Your task to perform on an android device: add a contact Image 0: 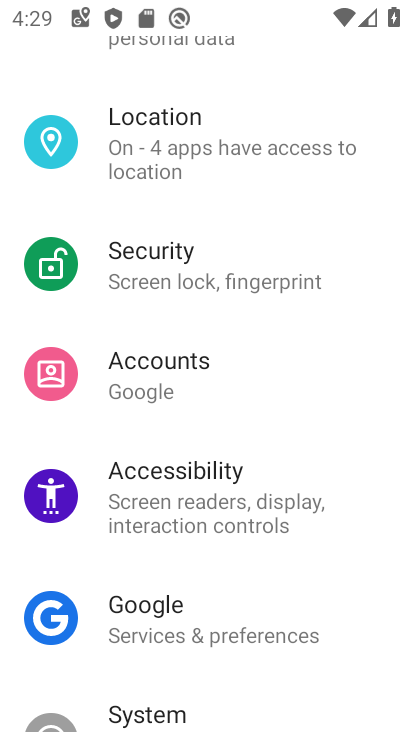
Step 0: press back button
Your task to perform on an android device: add a contact Image 1: 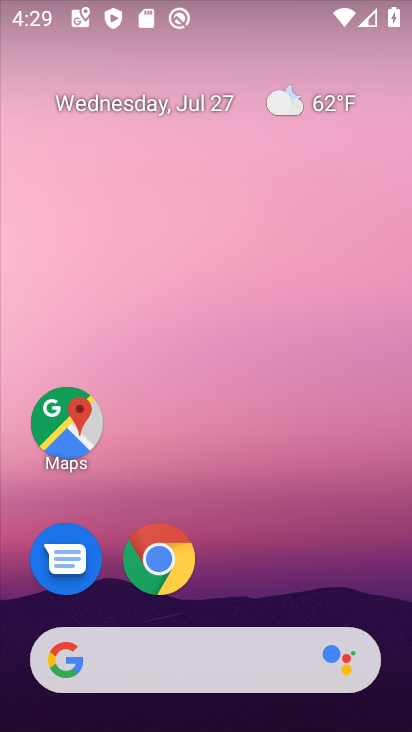
Step 1: drag from (313, 576) to (328, 20)
Your task to perform on an android device: add a contact Image 2: 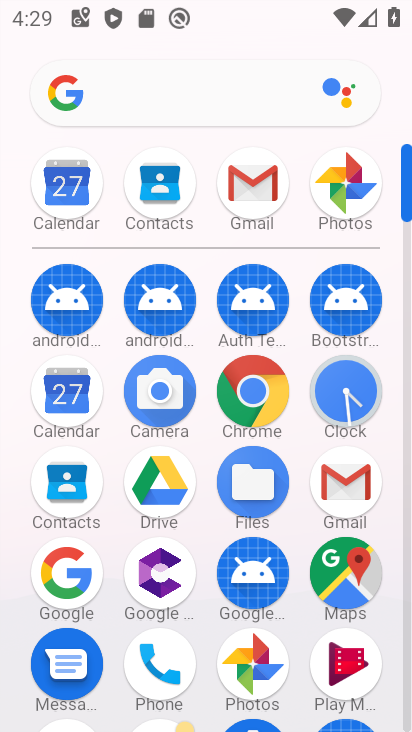
Step 2: click (65, 499)
Your task to perform on an android device: add a contact Image 3: 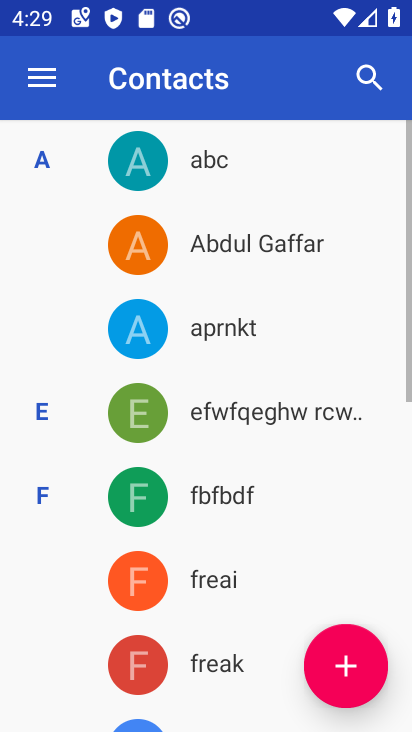
Step 3: click (356, 652)
Your task to perform on an android device: add a contact Image 4: 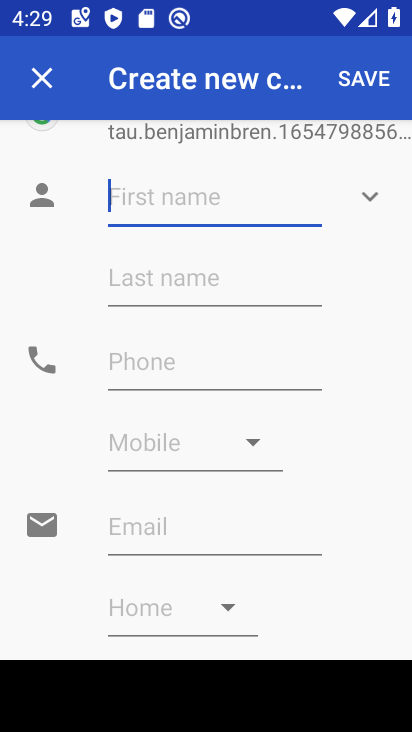
Step 4: click (159, 202)
Your task to perform on an android device: add a contact Image 5: 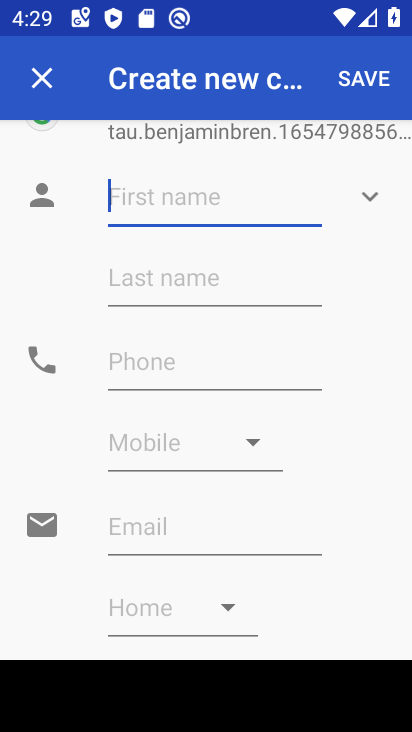
Step 5: type "bfgb"
Your task to perform on an android device: add a contact Image 6: 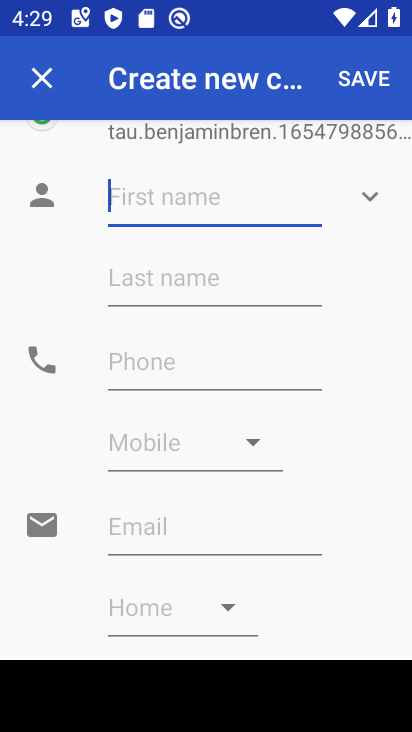
Step 6: click (172, 377)
Your task to perform on an android device: add a contact Image 7: 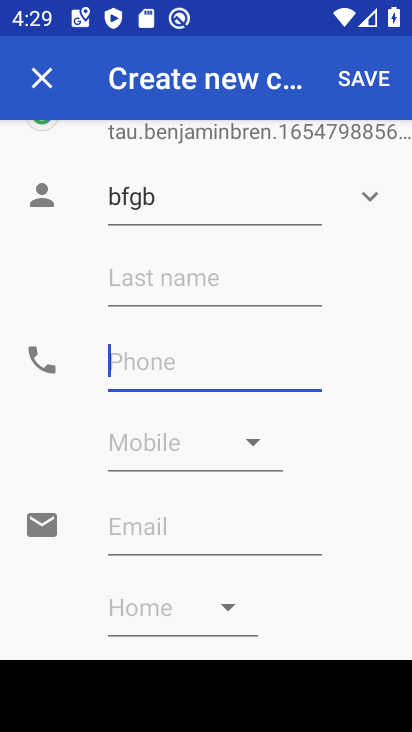
Step 7: type "67756"
Your task to perform on an android device: add a contact Image 8: 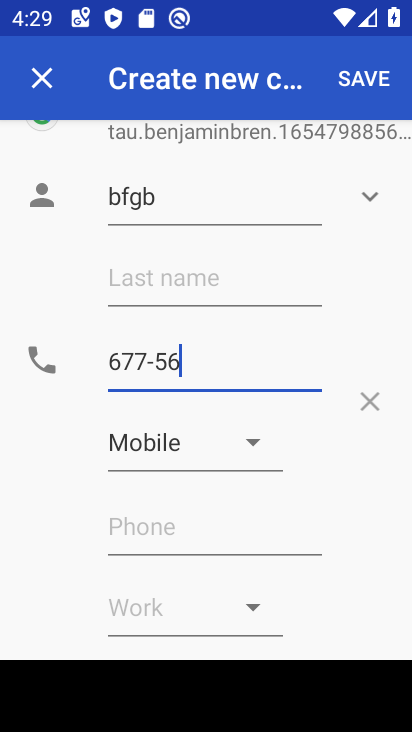
Step 8: click (371, 81)
Your task to perform on an android device: add a contact Image 9: 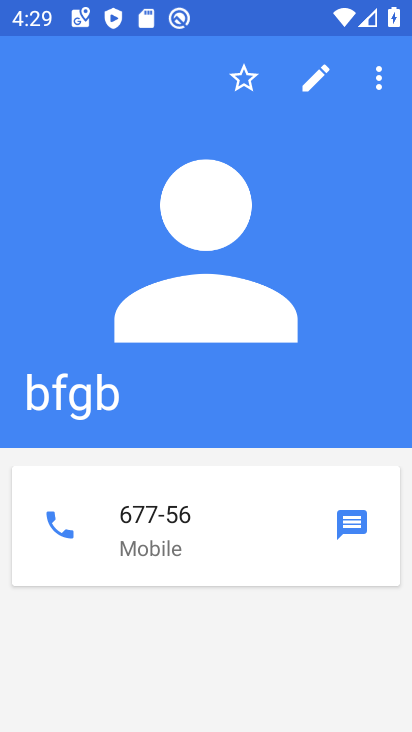
Step 9: task complete